Your task to perform on an android device: Open network settings Image 0: 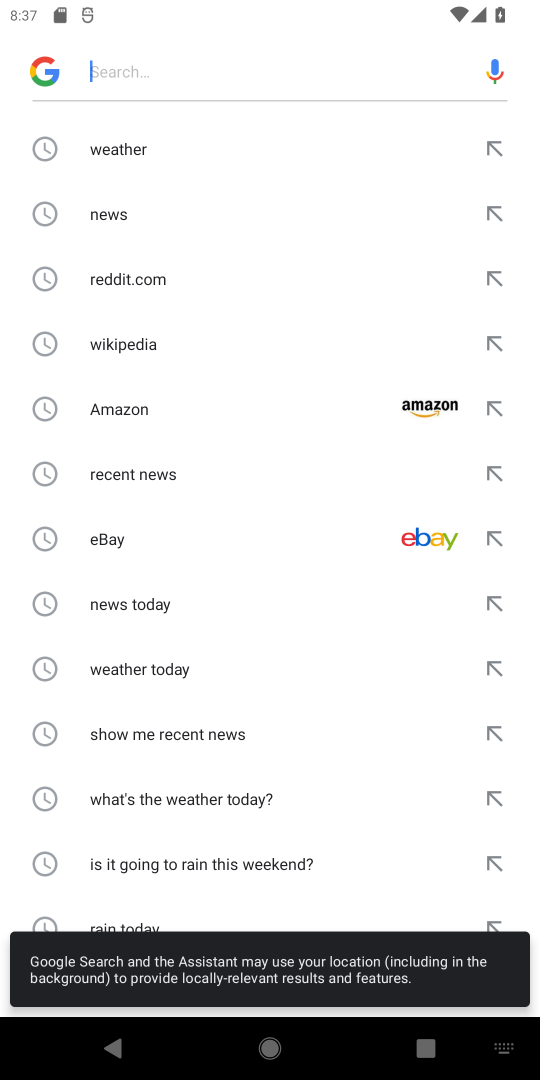
Step 0: drag from (308, 797) to (226, 104)
Your task to perform on an android device: Open network settings Image 1: 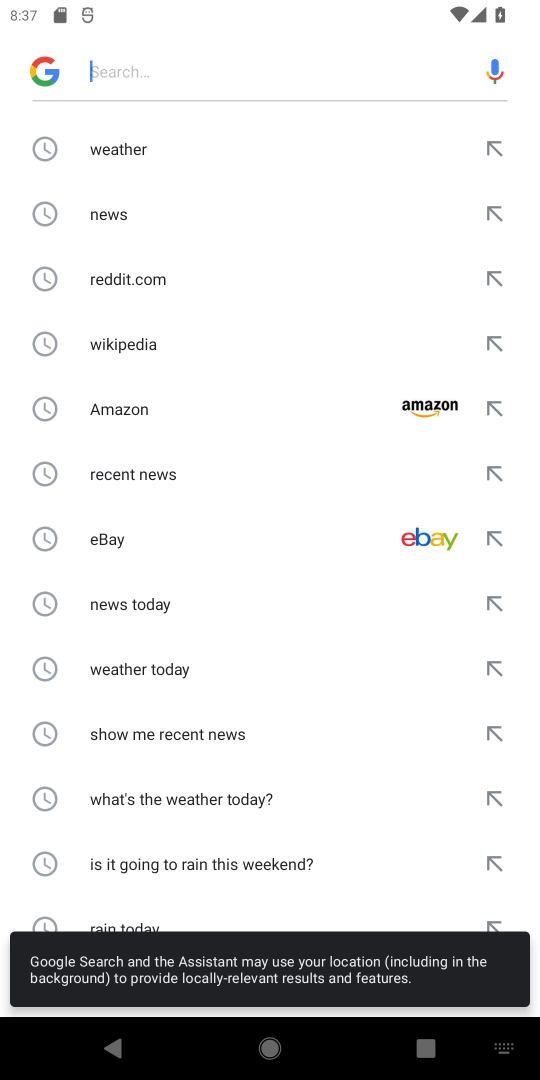
Step 1: drag from (279, 754) to (181, 259)
Your task to perform on an android device: Open network settings Image 2: 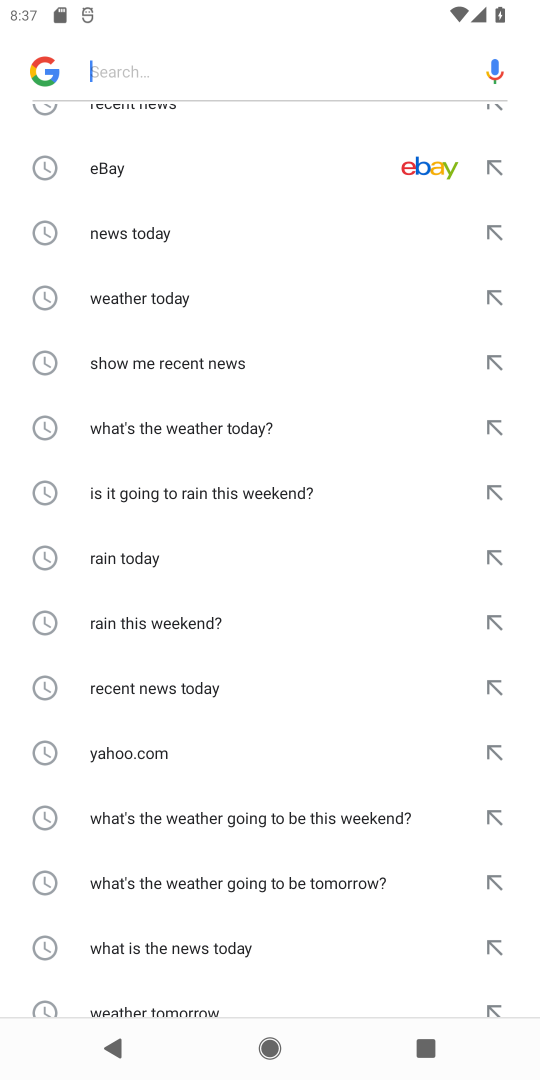
Step 2: drag from (294, 731) to (229, 278)
Your task to perform on an android device: Open network settings Image 3: 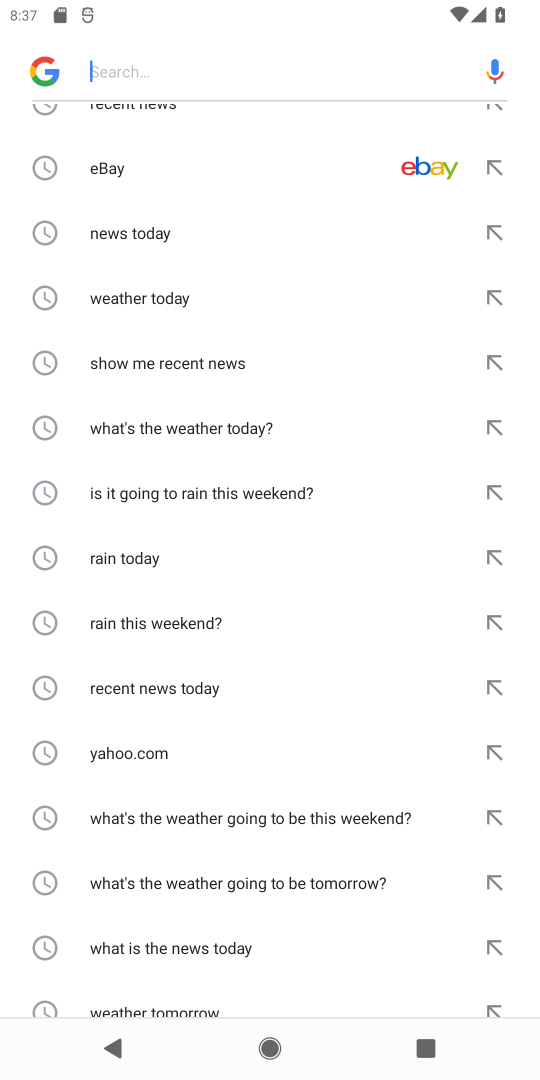
Step 3: drag from (299, 850) to (291, 360)
Your task to perform on an android device: Open network settings Image 4: 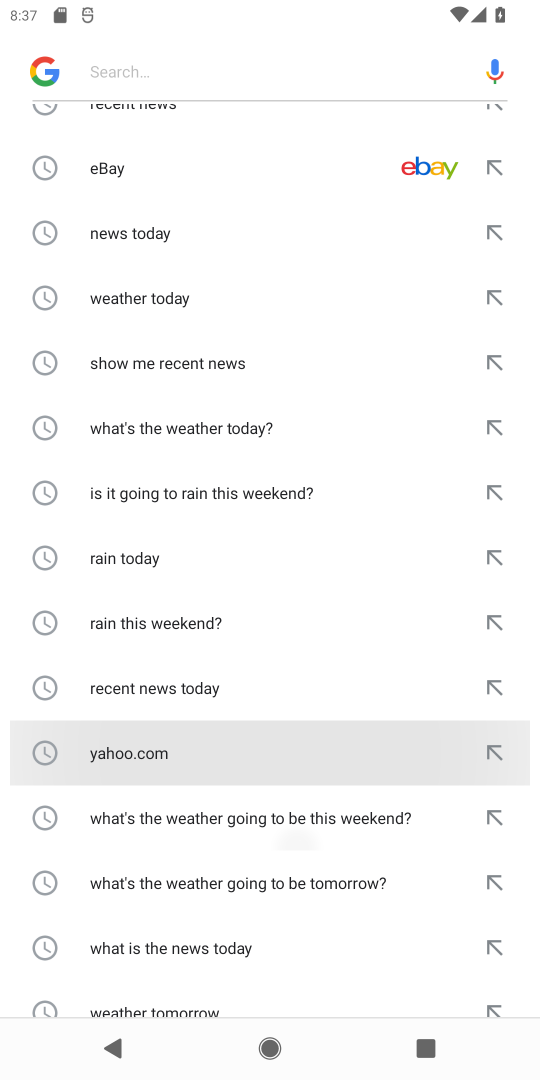
Step 4: drag from (328, 838) to (295, 270)
Your task to perform on an android device: Open network settings Image 5: 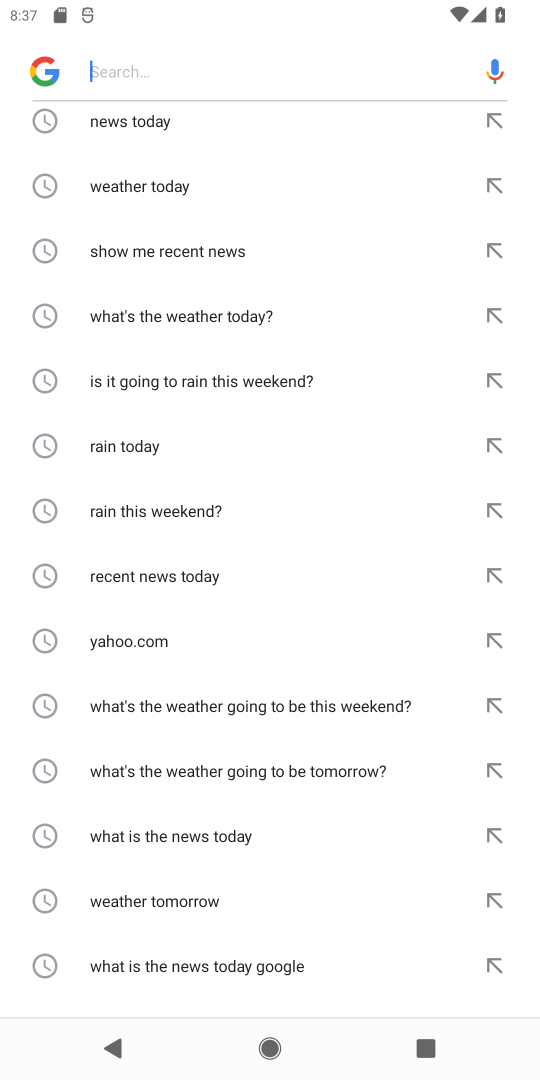
Step 5: press back button
Your task to perform on an android device: Open network settings Image 6: 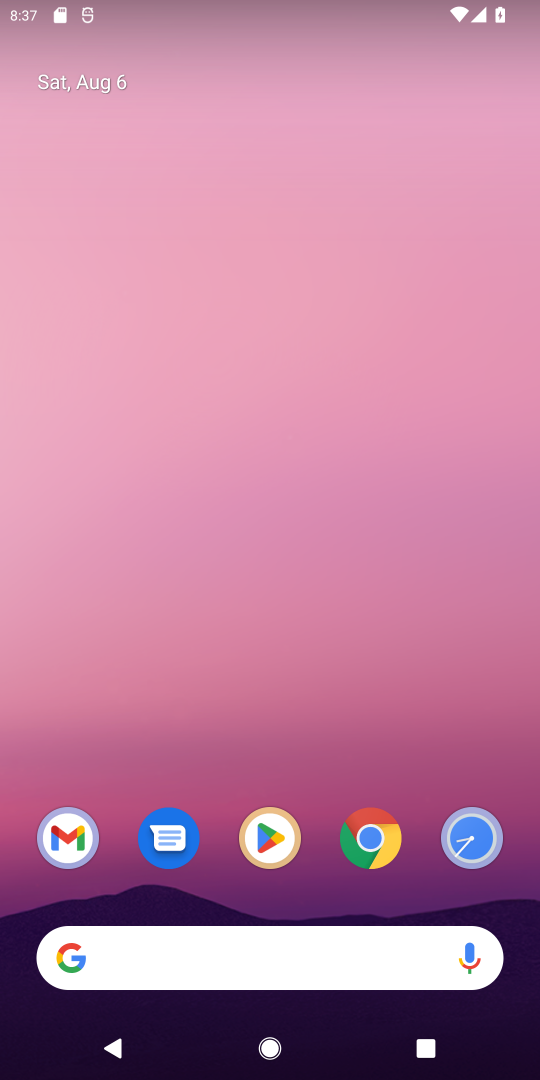
Step 6: drag from (383, 693) to (224, 131)
Your task to perform on an android device: Open network settings Image 7: 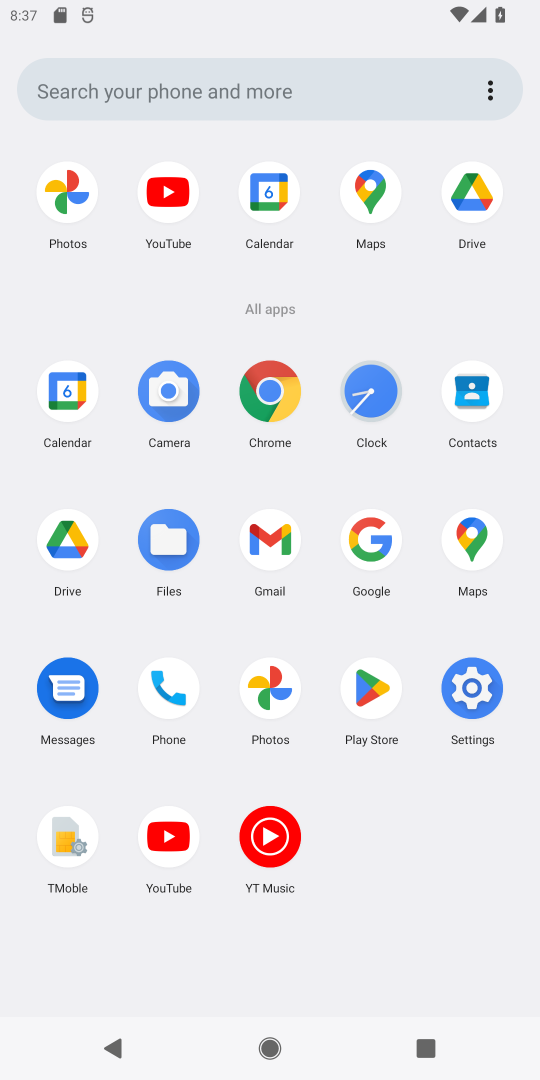
Step 7: click (473, 695)
Your task to perform on an android device: Open network settings Image 8: 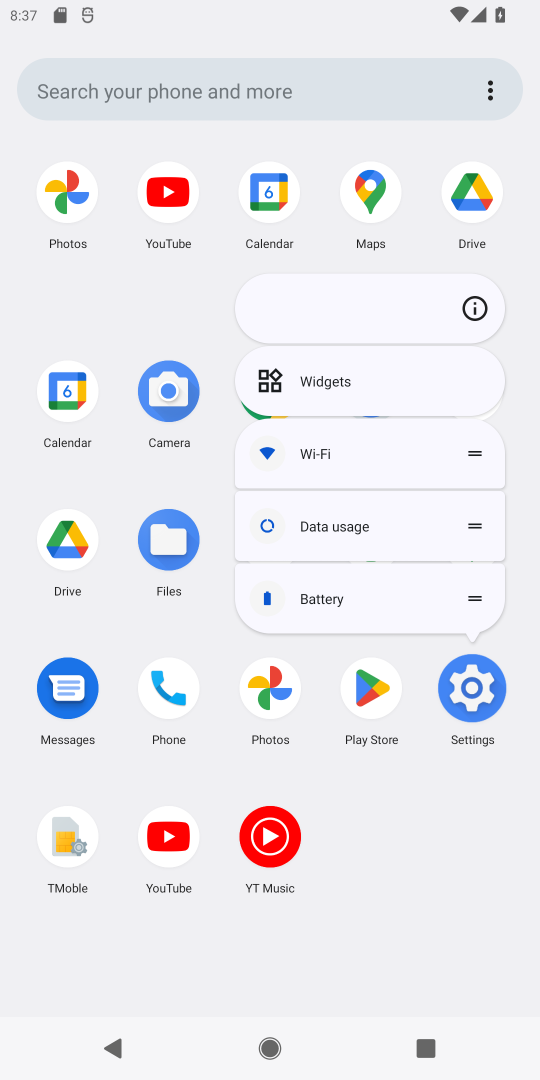
Step 8: click (473, 692)
Your task to perform on an android device: Open network settings Image 9: 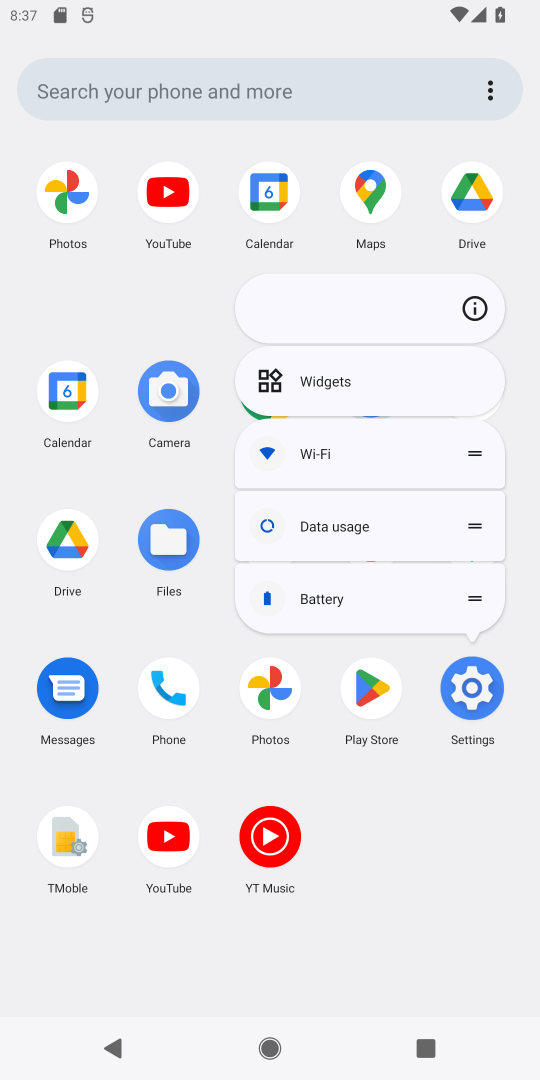
Step 9: click (473, 691)
Your task to perform on an android device: Open network settings Image 10: 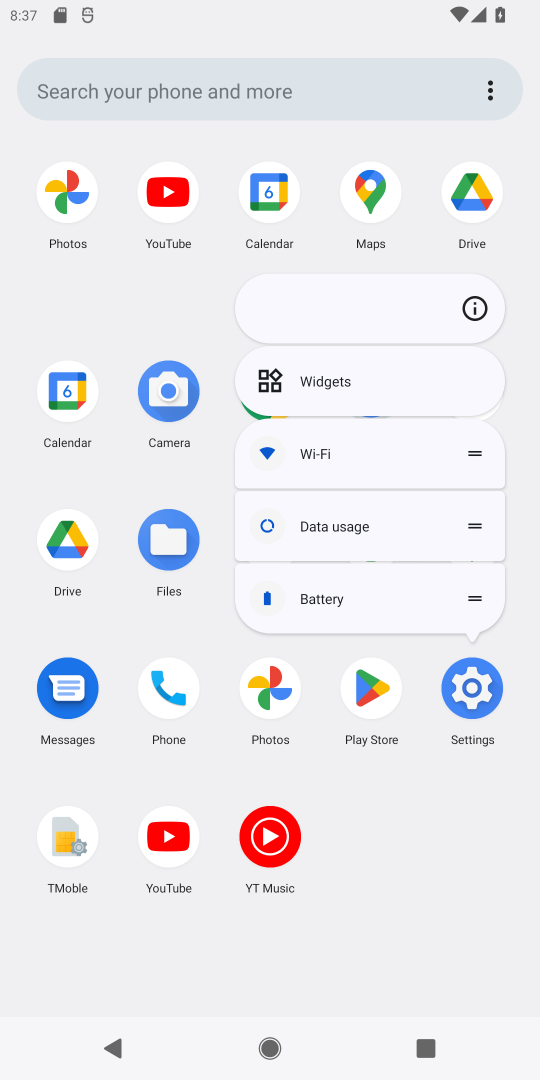
Step 10: click (477, 679)
Your task to perform on an android device: Open network settings Image 11: 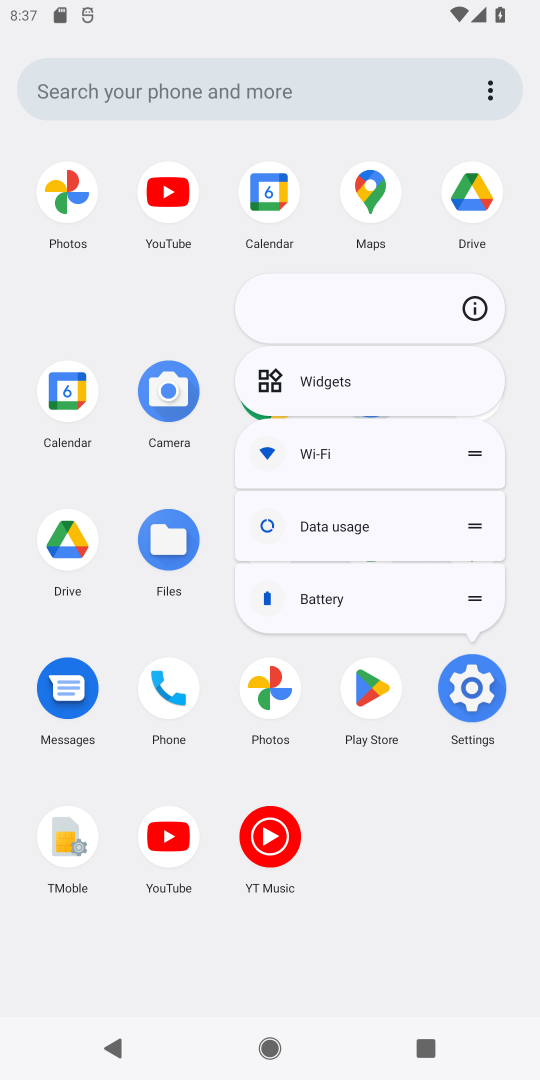
Step 11: click (478, 677)
Your task to perform on an android device: Open network settings Image 12: 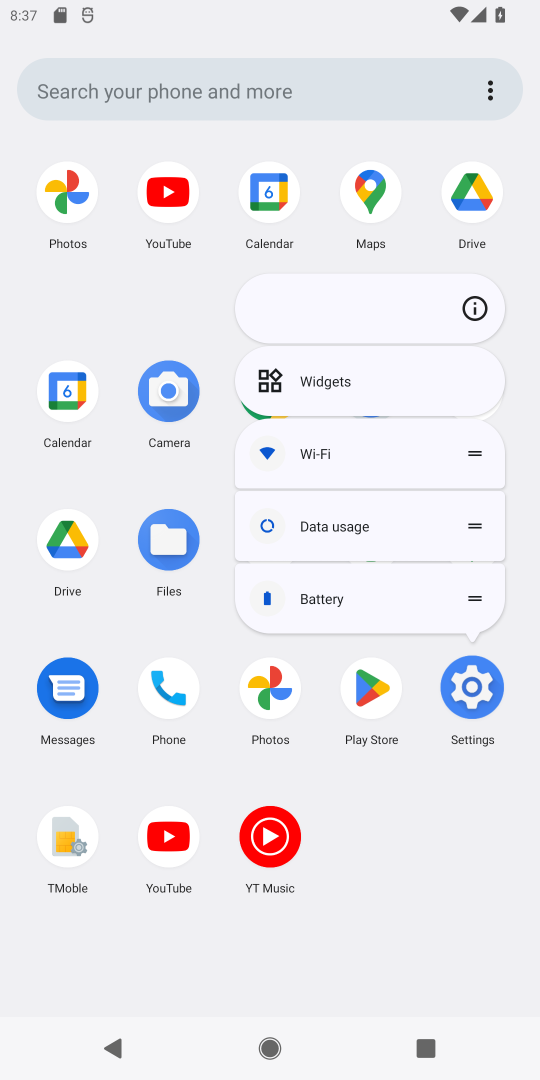
Step 12: click (477, 683)
Your task to perform on an android device: Open network settings Image 13: 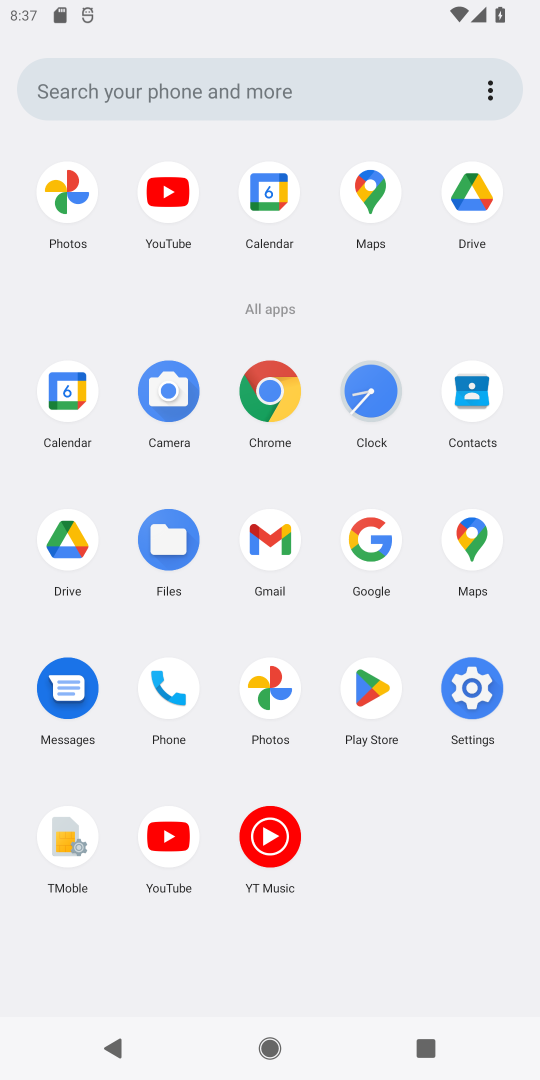
Step 13: click (477, 683)
Your task to perform on an android device: Open network settings Image 14: 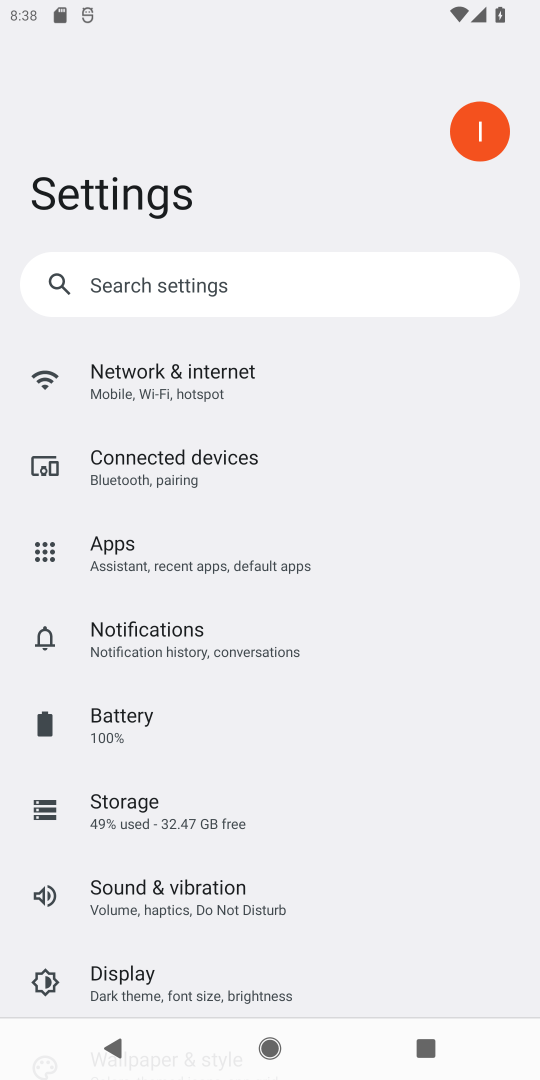
Step 14: click (152, 388)
Your task to perform on an android device: Open network settings Image 15: 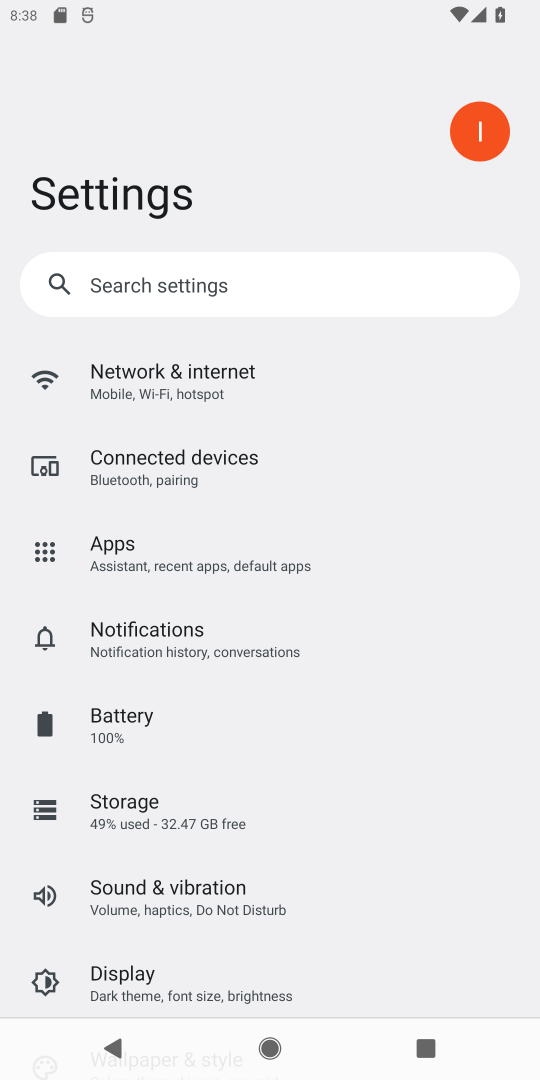
Step 15: click (152, 388)
Your task to perform on an android device: Open network settings Image 16: 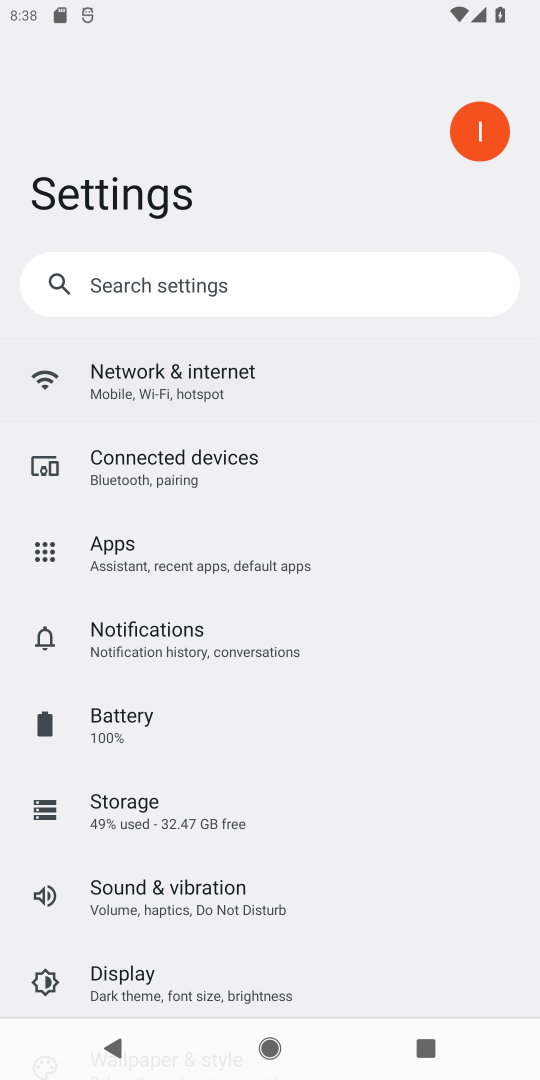
Step 16: click (177, 366)
Your task to perform on an android device: Open network settings Image 17: 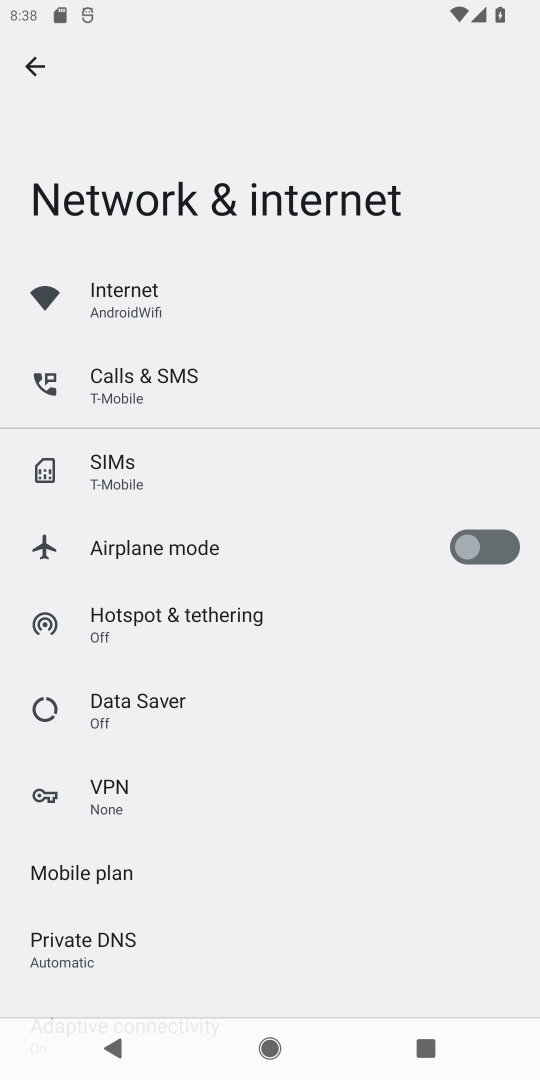
Step 17: task complete